Your task to perform on an android device: Do I have any events today? Image 0: 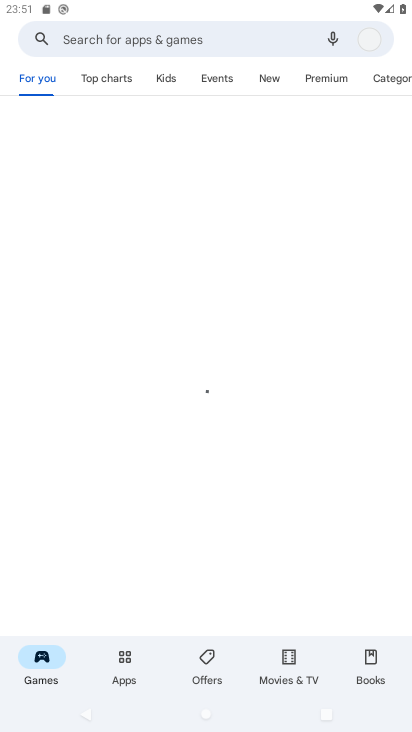
Step 0: click (284, 643)
Your task to perform on an android device: Do I have any events today? Image 1: 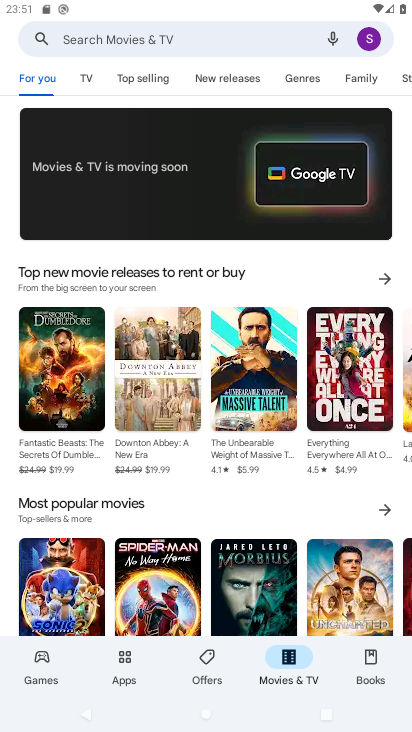
Step 1: press home button
Your task to perform on an android device: Do I have any events today? Image 2: 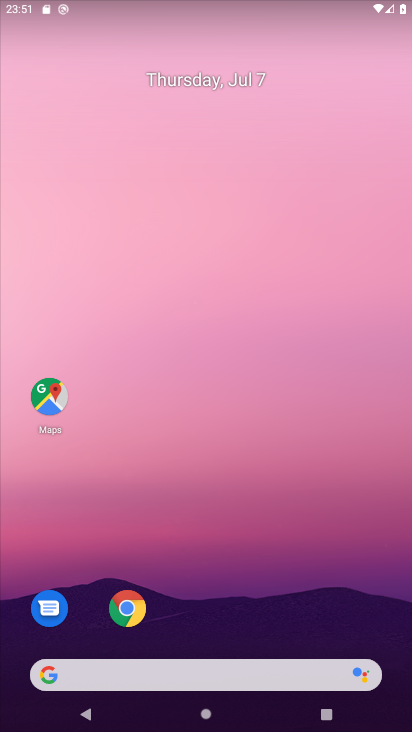
Step 2: drag from (212, 644) to (224, 381)
Your task to perform on an android device: Do I have any events today? Image 3: 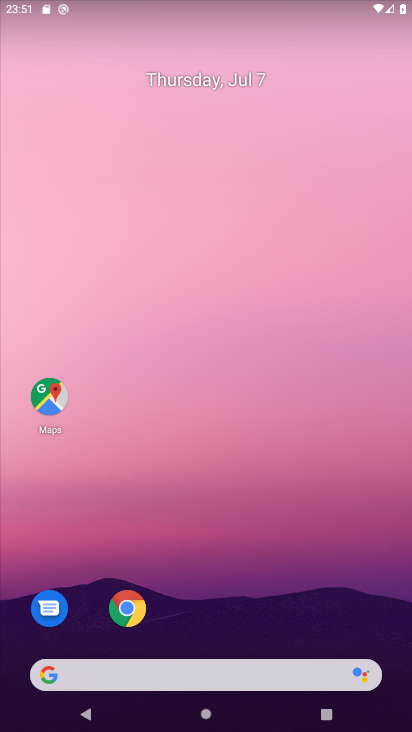
Step 3: drag from (208, 608) to (193, 230)
Your task to perform on an android device: Do I have any events today? Image 4: 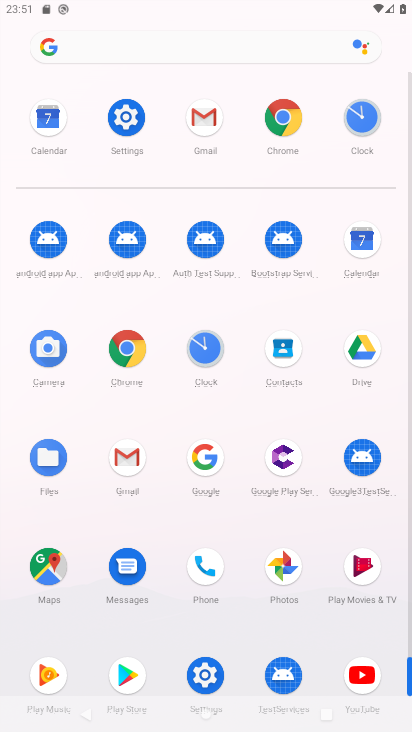
Step 4: click (51, 109)
Your task to perform on an android device: Do I have any events today? Image 5: 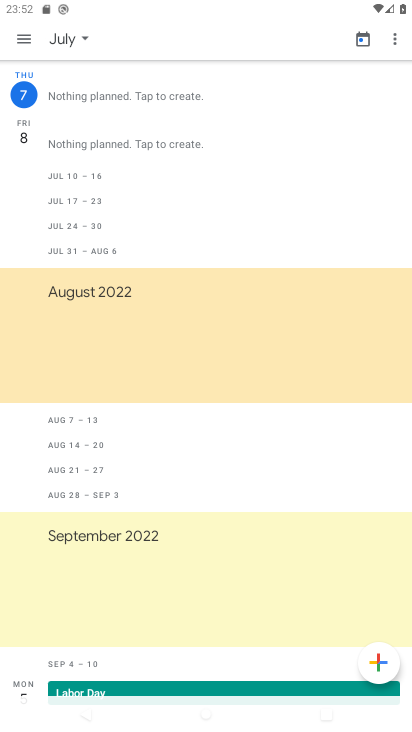
Step 5: task complete